Your task to perform on an android device: What's the weather like in Rio de Janeiro? Image 0: 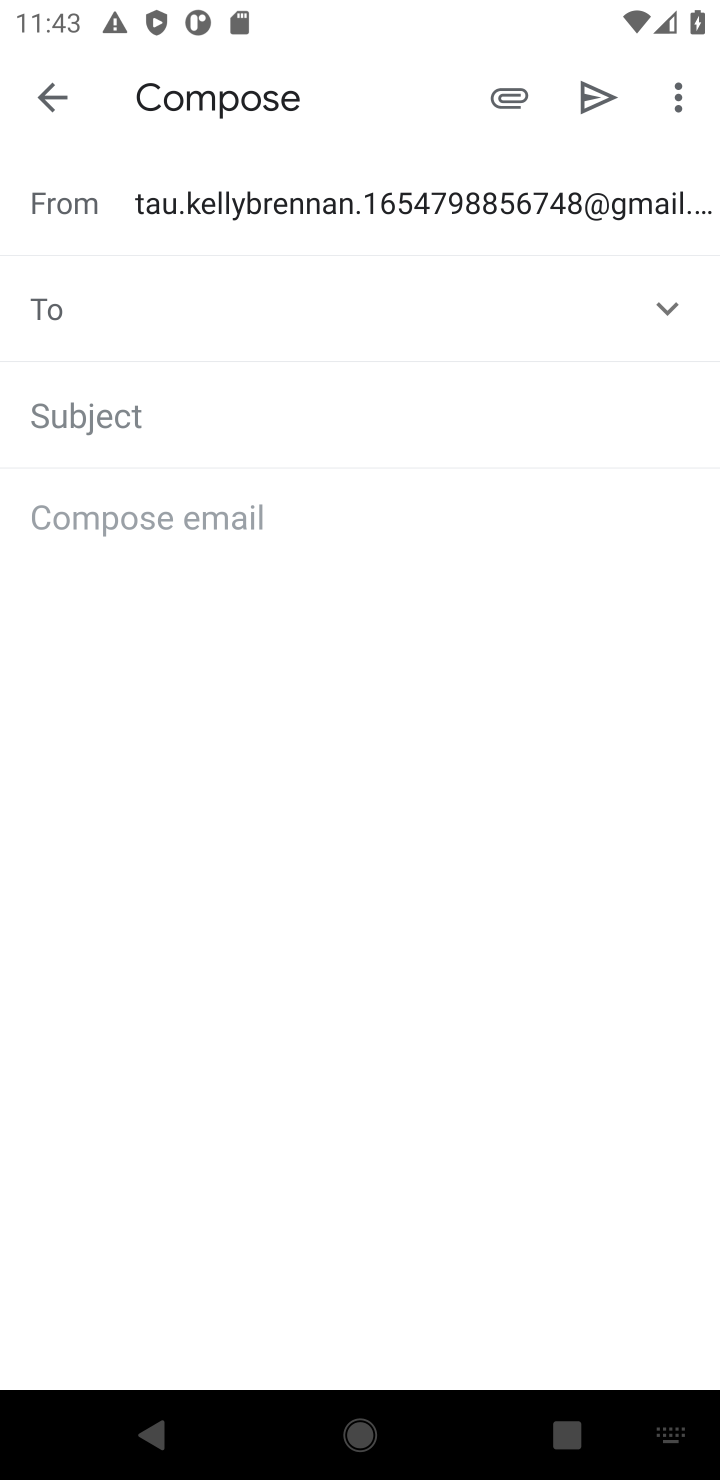
Step 0: press home button
Your task to perform on an android device: What's the weather like in Rio de Janeiro? Image 1: 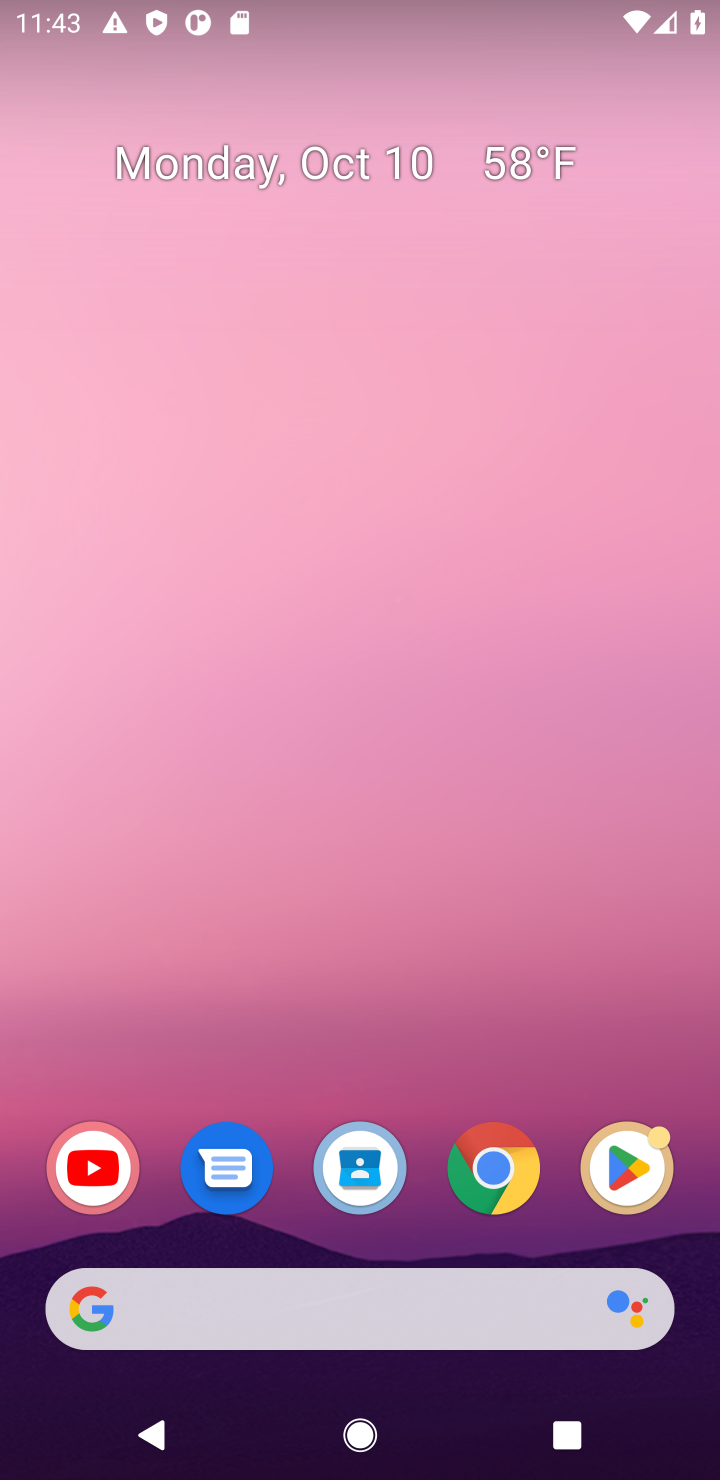
Step 1: click (370, 1298)
Your task to perform on an android device: What's the weather like in Rio de Janeiro? Image 2: 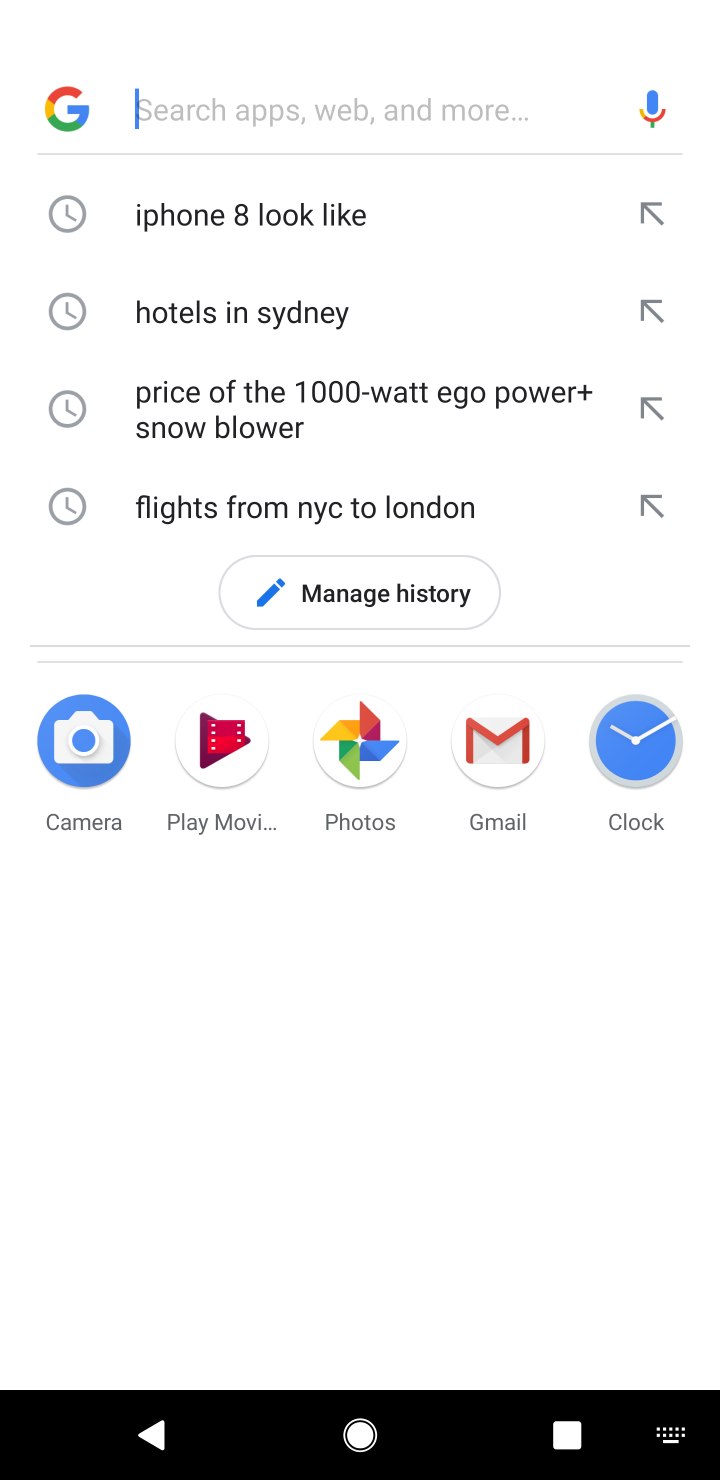
Step 2: type "weather like in Rio de Janeiro"
Your task to perform on an android device: What's the weather like in Rio de Janeiro? Image 3: 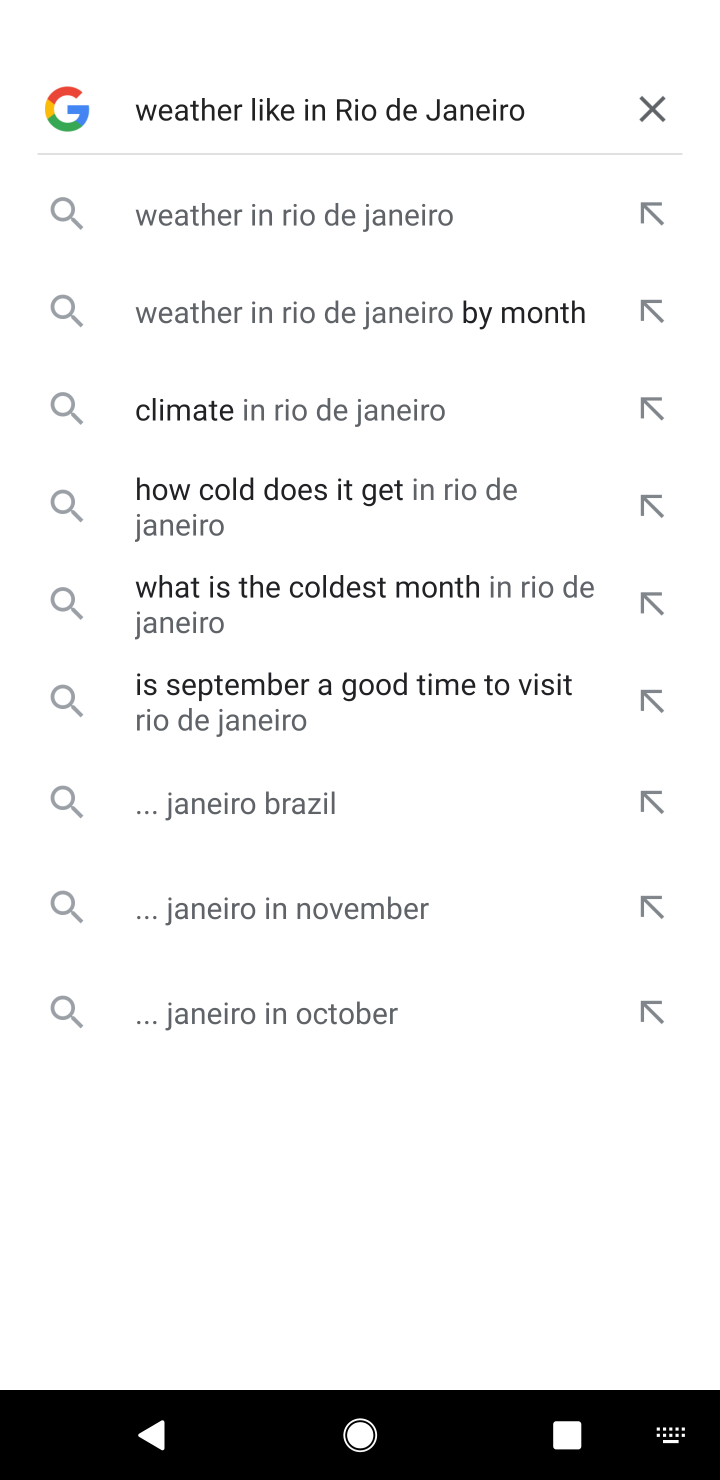
Step 3: click (492, 208)
Your task to perform on an android device: What's the weather like in Rio de Janeiro? Image 4: 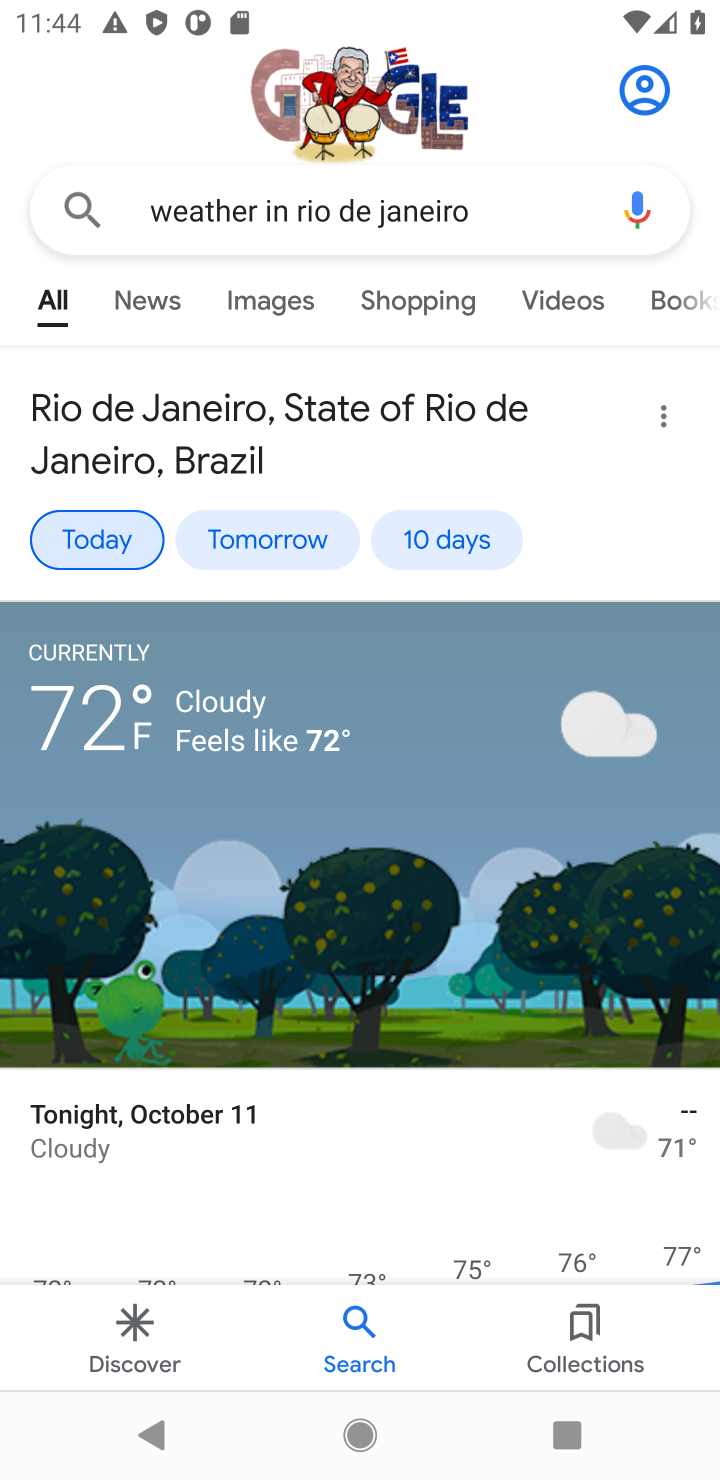
Step 4: task complete